Your task to perform on an android device: Show me recent news Image 0: 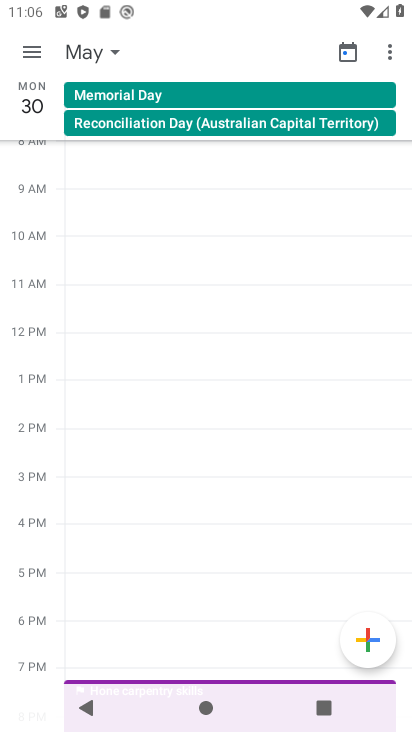
Step 0: press home button
Your task to perform on an android device: Show me recent news Image 1: 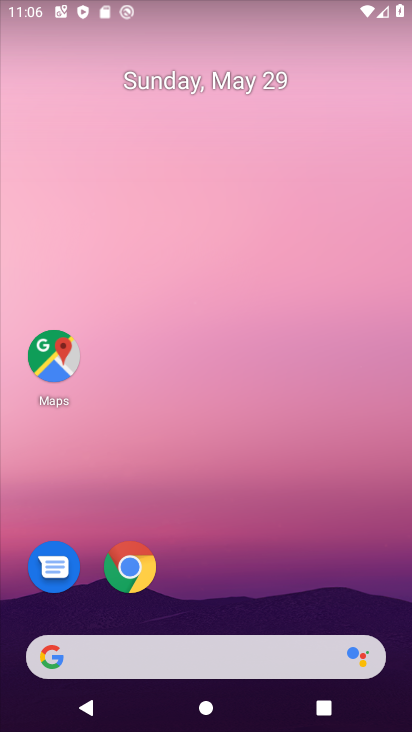
Step 1: click (234, 661)
Your task to perform on an android device: Show me recent news Image 2: 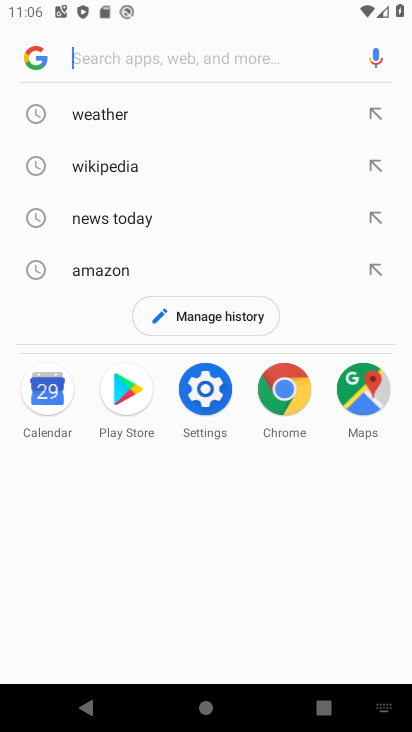
Step 2: click (139, 227)
Your task to perform on an android device: Show me recent news Image 3: 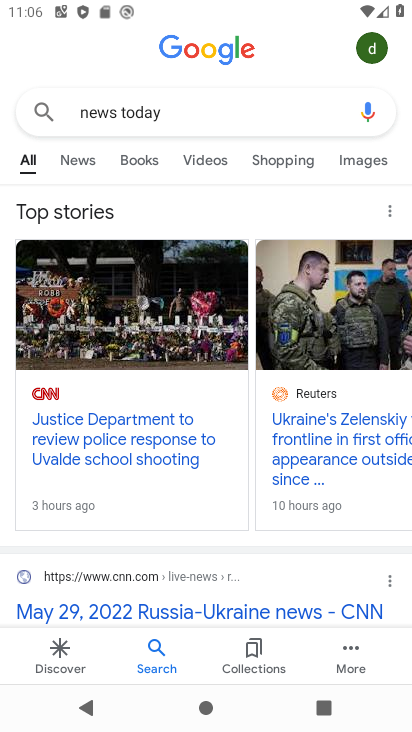
Step 3: click (92, 158)
Your task to perform on an android device: Show me recent news Image 4: 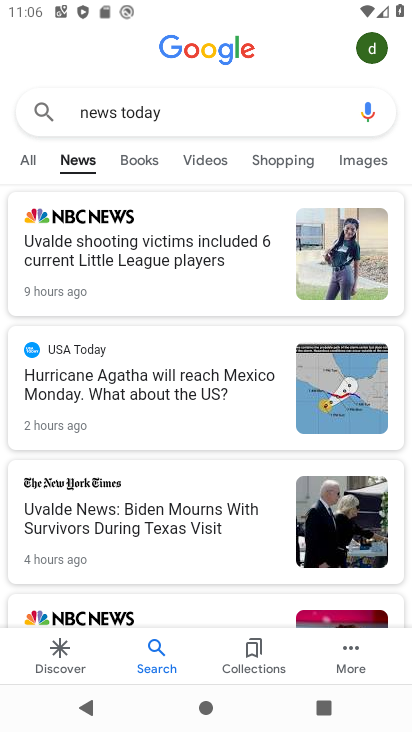
Step 4: task complete